Your task to perform on an android device: Go to location settings Image 0: 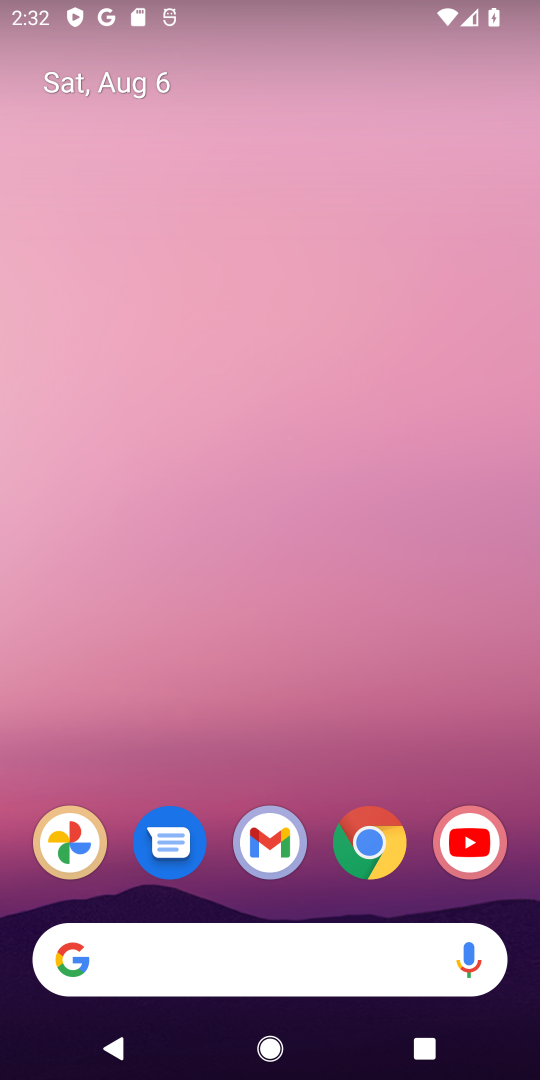
Step 0: drag from (509, 974) to (440, 161)
Your task to perform on an android device: Go to location settings Image 1: 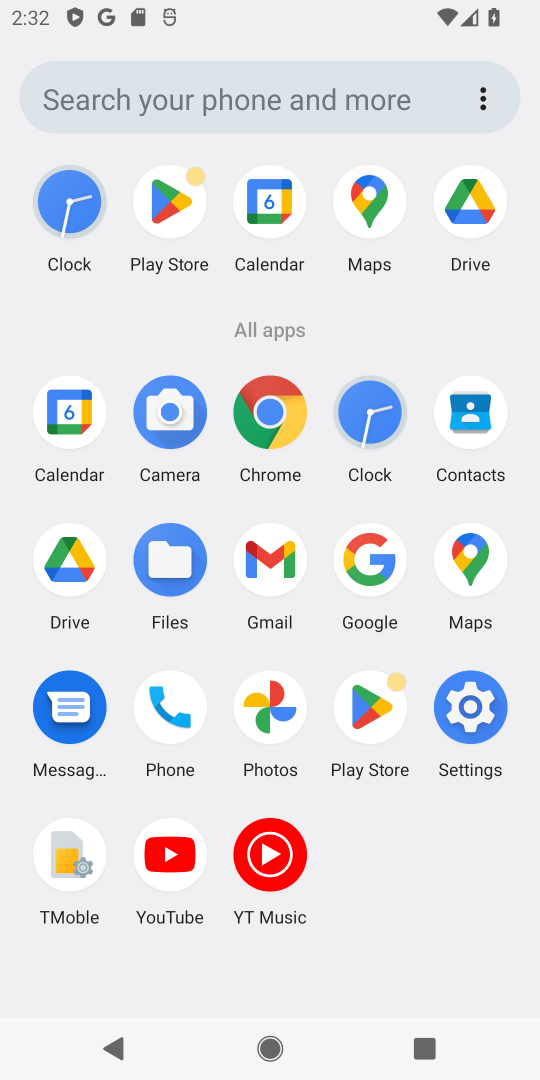
Step 1: click (471, 693)
Your task to perform on an android device: Go to location settings Image 2: 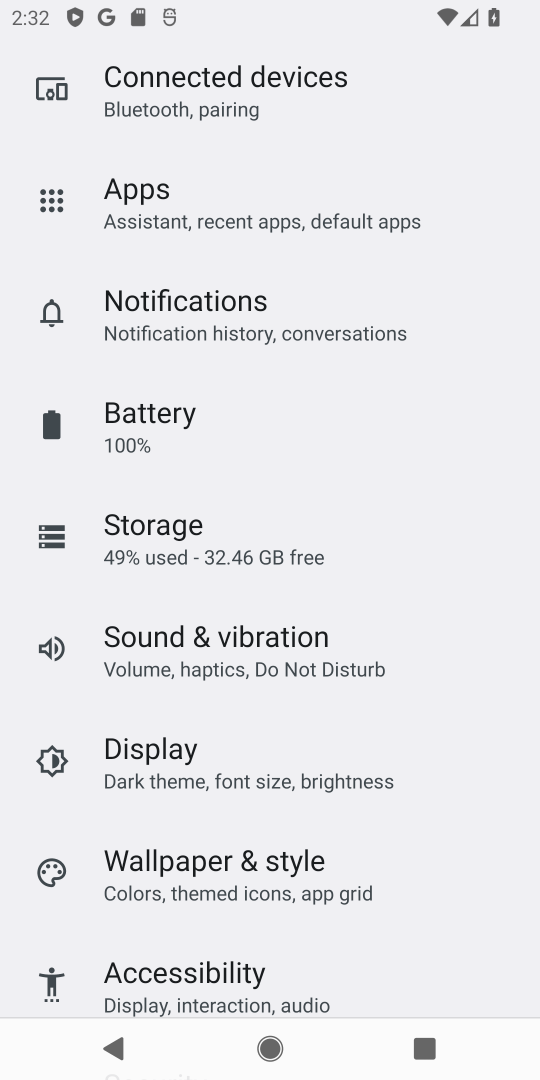
Step 2: drag from (398, 970) to (347, 381)
Your task to perform on an android device: Go to location settings Image 3: 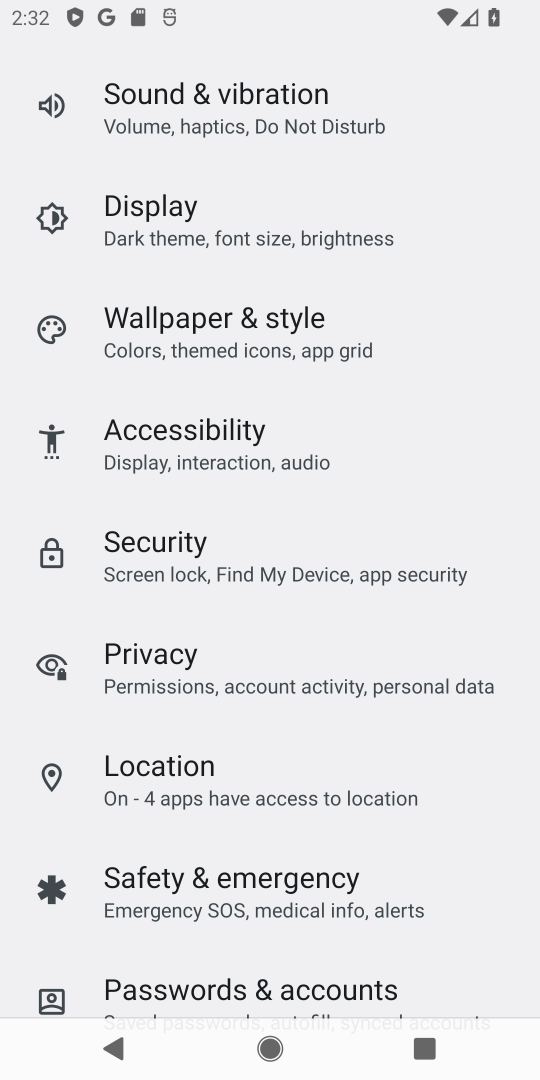
Step 3: click (143, 768)
Your task to perform on an android device: Go to location settings Image 4: 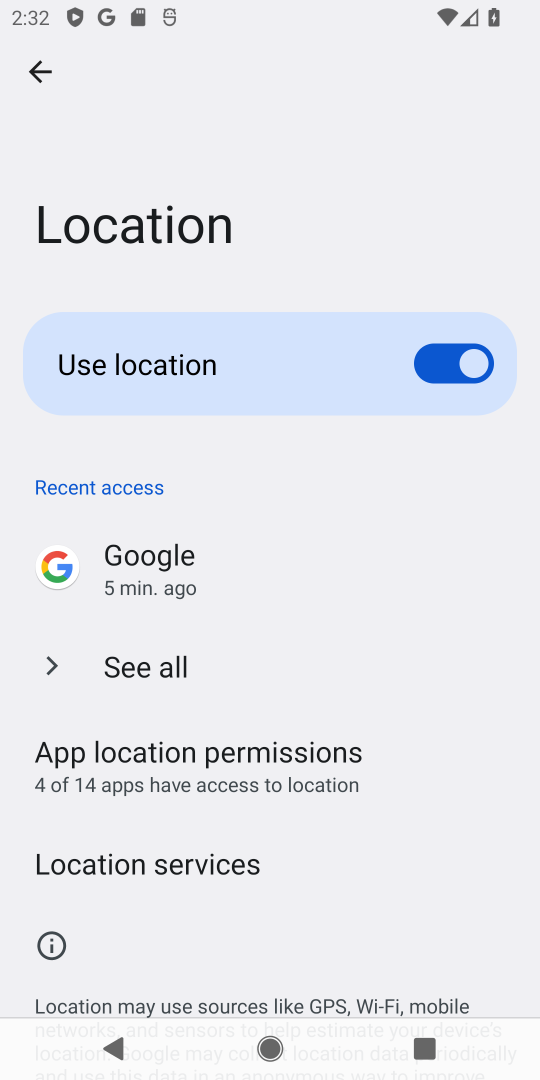
Step 4: task complete